Your task to perform on an android device: Do I have any events this weekend? Image 0: 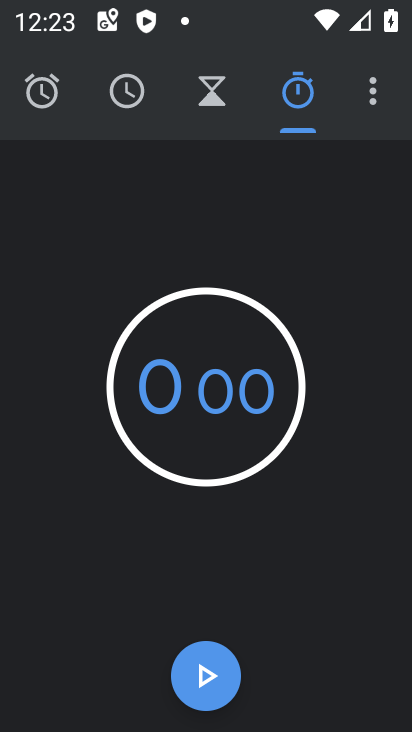
Step 0: press home button
Your task to perform on an android device: Do I have any events this weekend? Image 1: 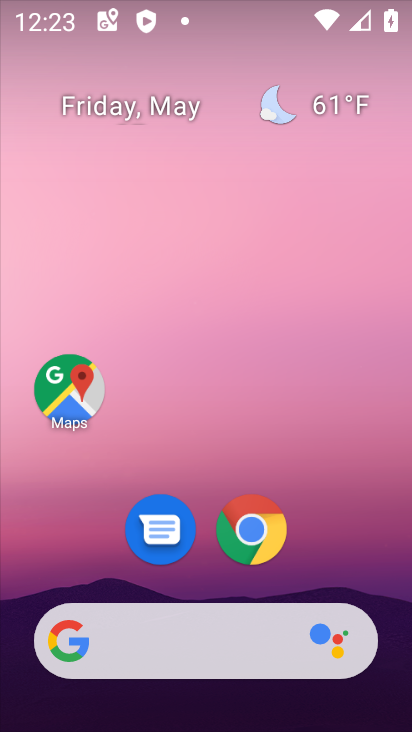
Step 1: drag from (352, 558) to (256, 67)
Your task to perform on an android device: Do I have any events this weekend? Image 2: 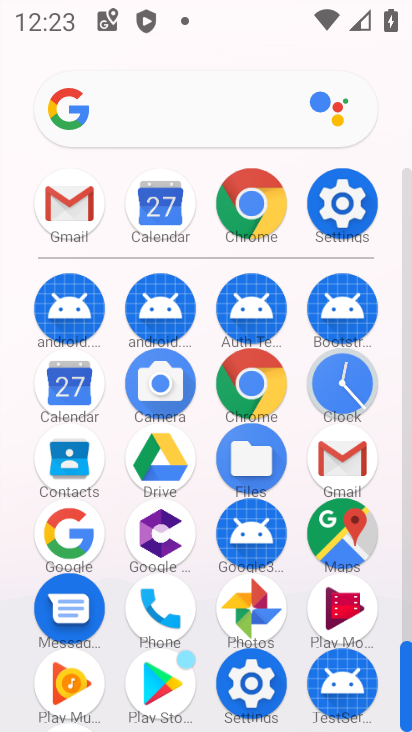
Step 2: click (147, 204)
Your task to perform on an android device: Do I have any events this weekend? Image 3: 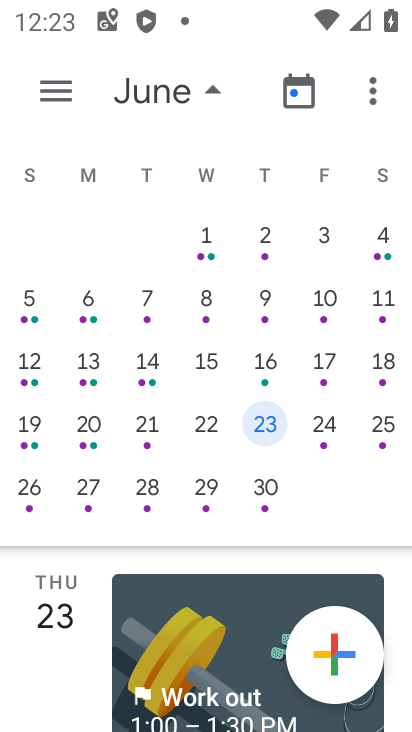
Step 3: task complete